Your task to perform on an android device: Open settings on Google Maps Image 0: 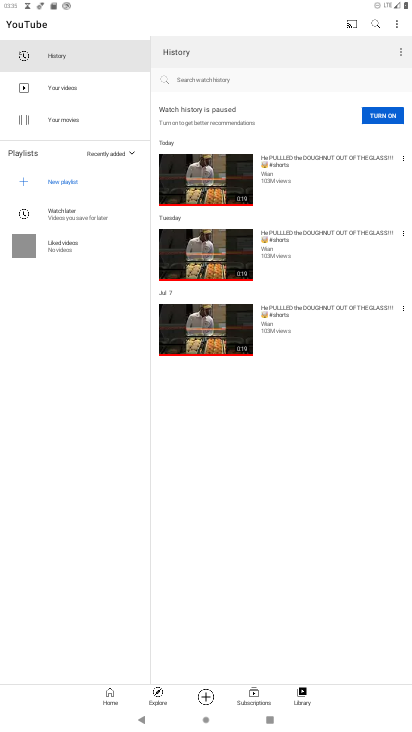
Step 0: press home button
Your task to perform on an android device: Open settings on Google Maps Image 1: 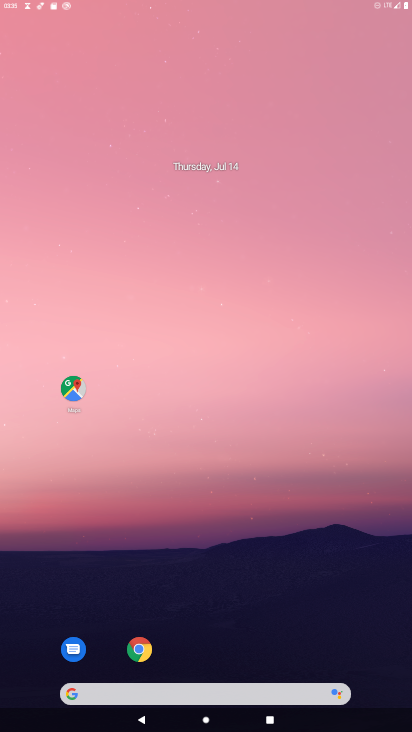
Step 1: drag from (322, 665) to (283, 116)
Your task to perform on an android device: Open settings on Google Maps Image 2: 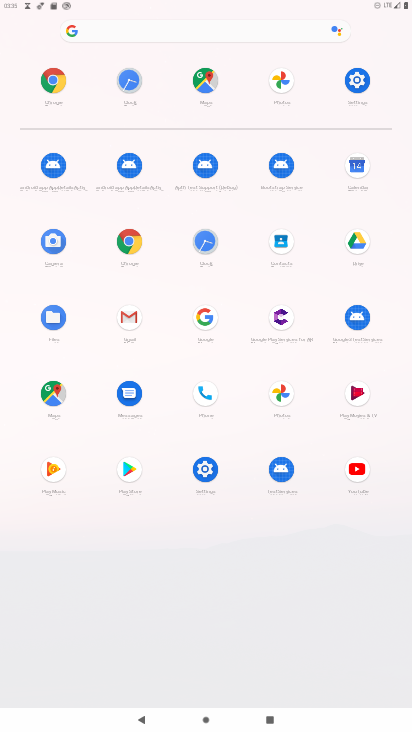
Step 2: click (60, 397)
Your task to perform on an android device: Open settings on Google Maps Image 3: 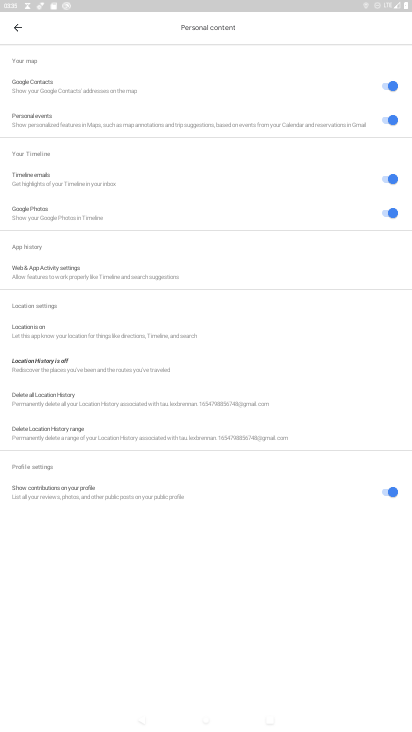
Step 3: press back button
Your task to perform on an android device: Open settings on Google Maps Image 4: 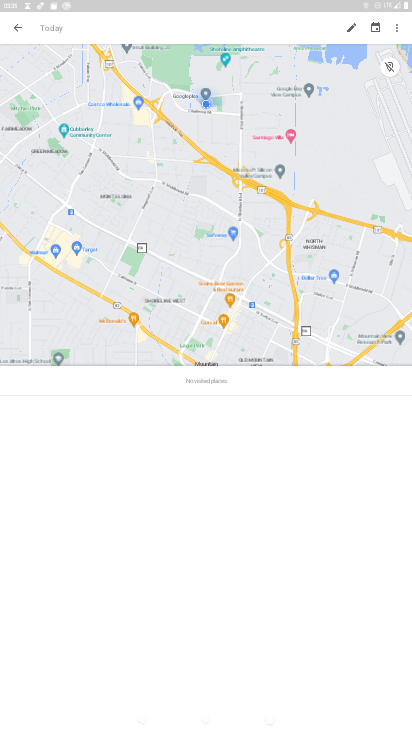
Step 4: press back button
Your task to perform on an android device: Open settings on Google Maps Image 5: 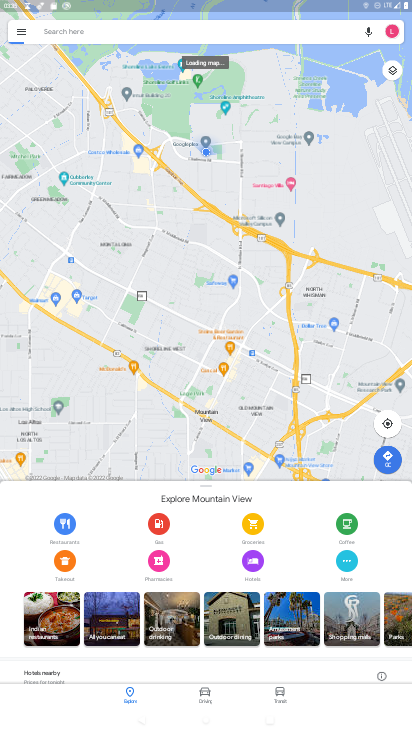
Step 5: click (15, 34)
Your task to perform on an android device: Open settings on Google Maps Image 6: 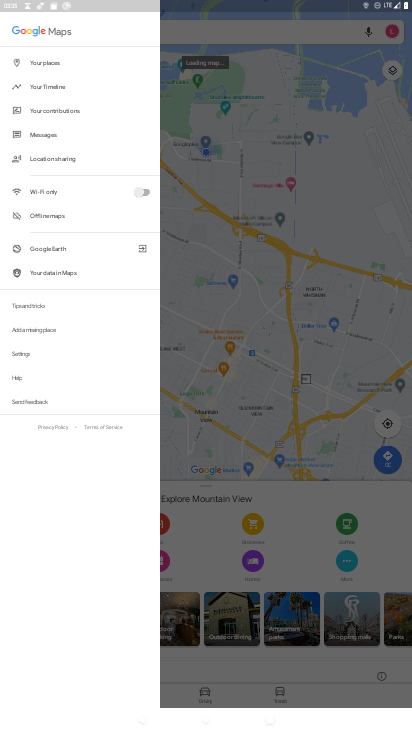
Step 6: click (47, 82)
Your task to perform on an android device: Open settings on Google Maps Image 7: 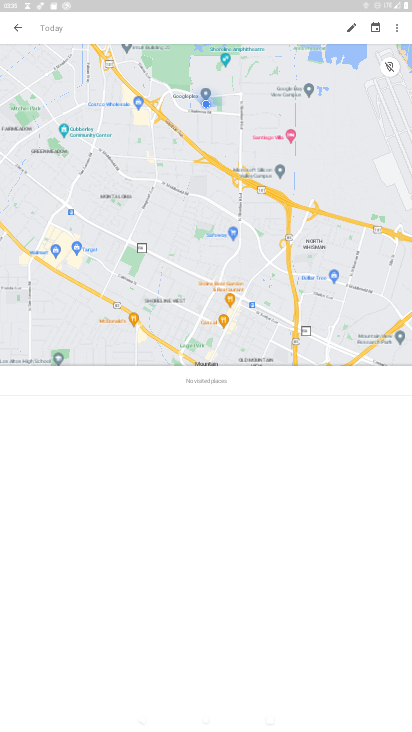
Step 7: click (396, 23)
Your task to perform on an android device: Open settings on Google Maps Image 8: 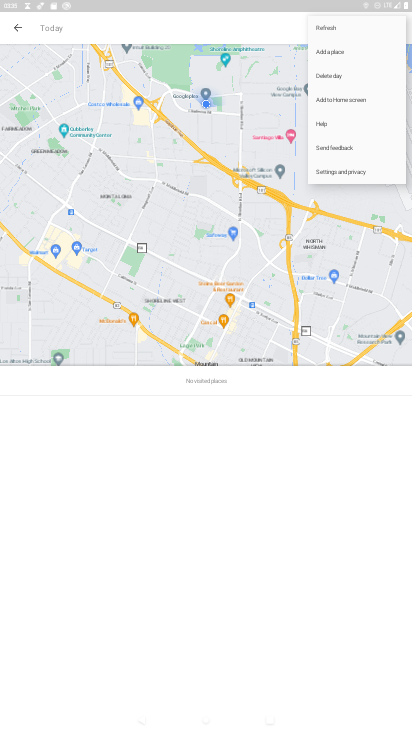
Step 8: click (340, 169)
Your task to perform on an android device: Open settings on Google Maps Image 9: 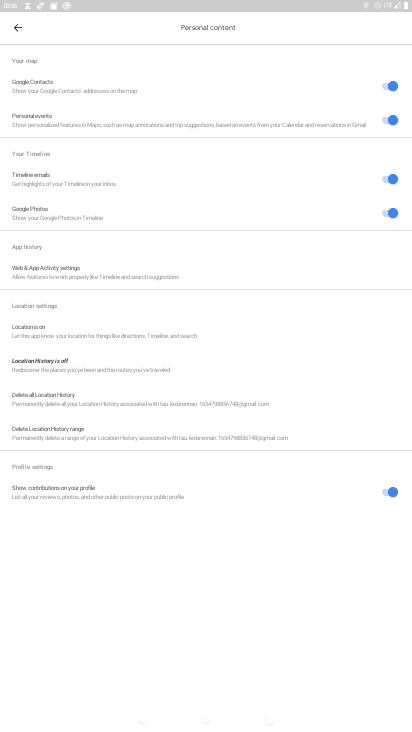
Step 9: task complete